Your task to perform on an android device: create a new album in the google photos Image 0: 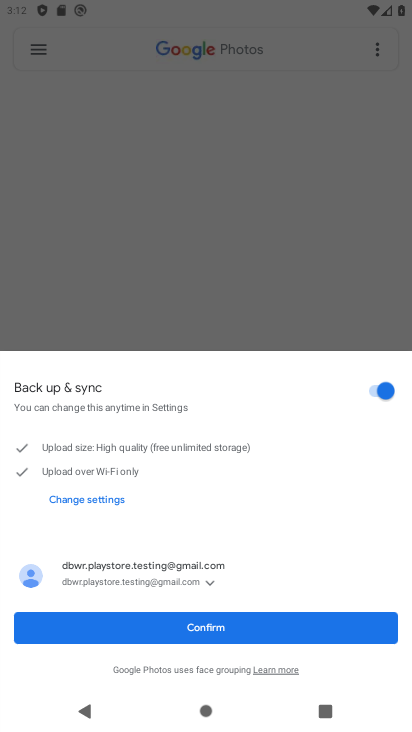
Step 0: press home button
Your task to perform on an android device: create a new album in the google photos Image 1: 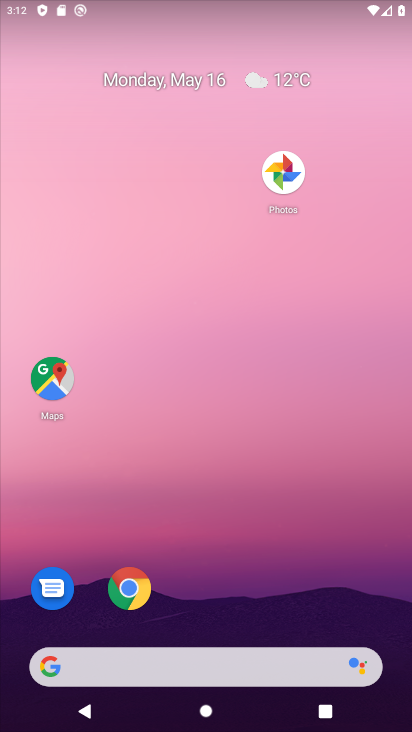
Step 1: drag from (211, 625) to (266, 23)
Your task to perform on an android device: create a new album in the google photos Image 2: 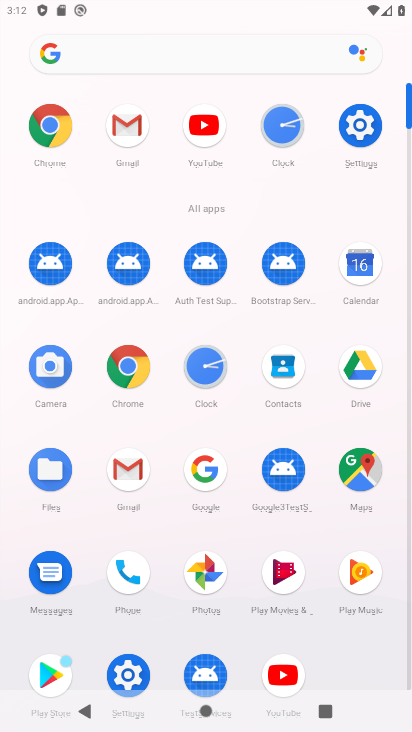
Step 2: click (218, 573)
Your task to perform on an android device: create a new album in the google photos Image 3: 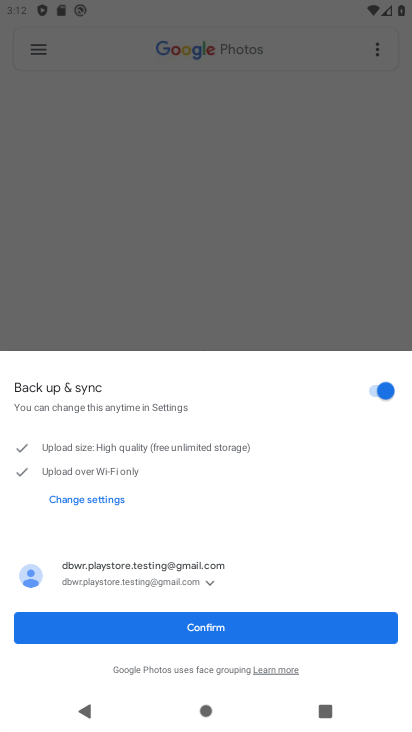
Step 3: click (219, 635)
Your task to perform on an android device: create a new album in the google photos Image 4: 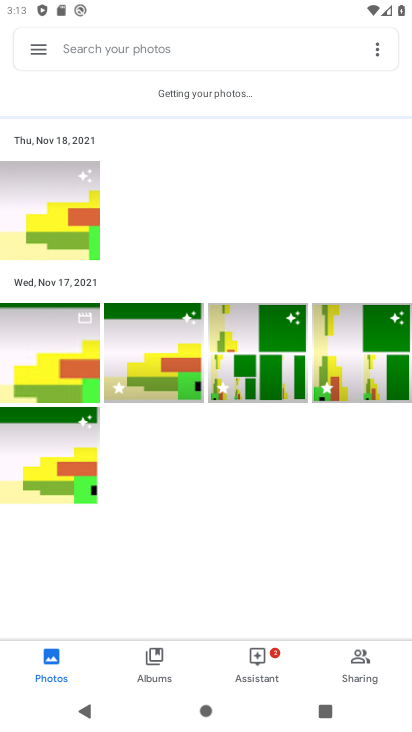
Step 4: drag from (65, 180) to (59, 297)
Your task to perform on an android device: create a new album in the google photos Image 5: 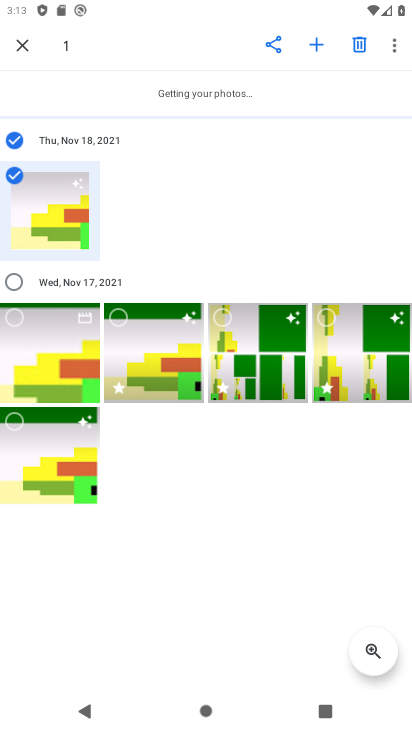
Step 5: click (13, 323)
Your task to perform on an android device: create a new album in the google photos Image 6: 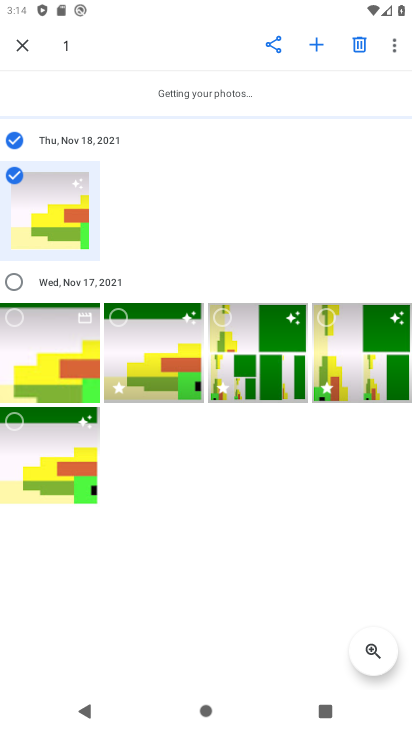
Step 6: click (51, 341)
Your task to perform on an android device: create a new album in the google photos Image 7: 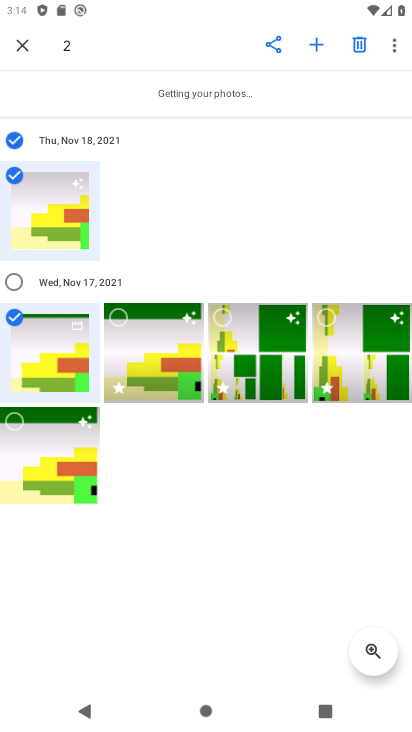
Step 7: click (321, 51)
Your task to perform on an android device: create a new album in the google photos Image 8: 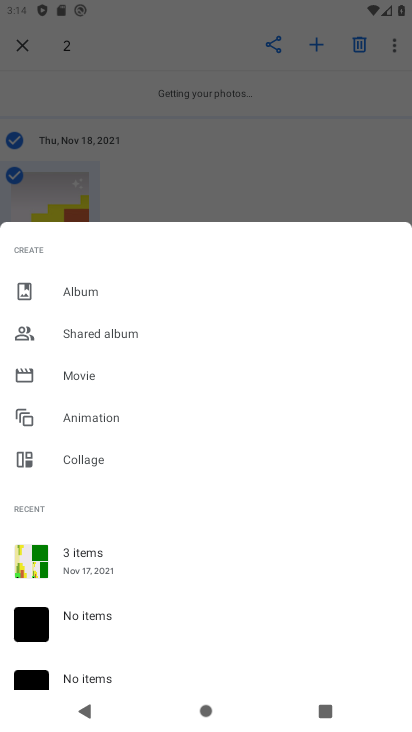
Step 8: type "wqxwfeg"
Your task to perform on an android device: create a new album in the google photos Image 9: 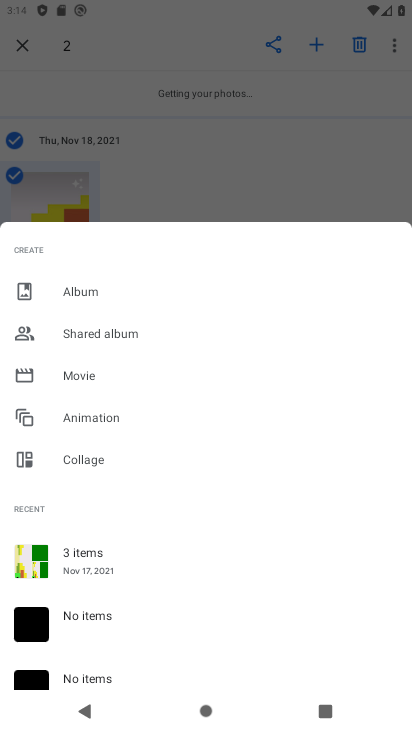
Step 9: click (77, 276)
Your task to perform on an android device: create a new album in the google photos Image 10: 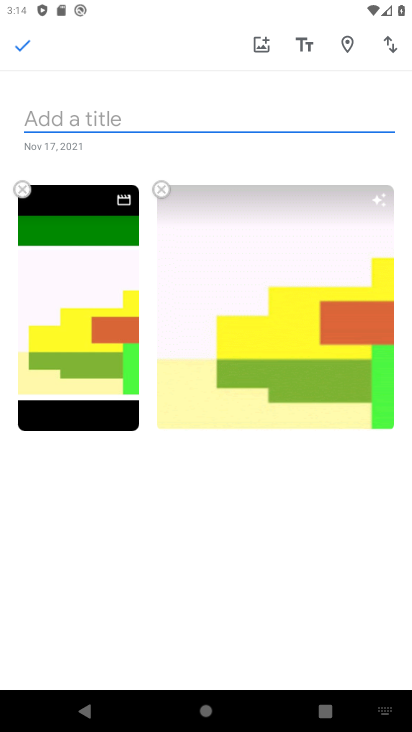
Step 10: type "mnbvg"
Your task to perform on an android device: create a new album in the google photos Image 11: 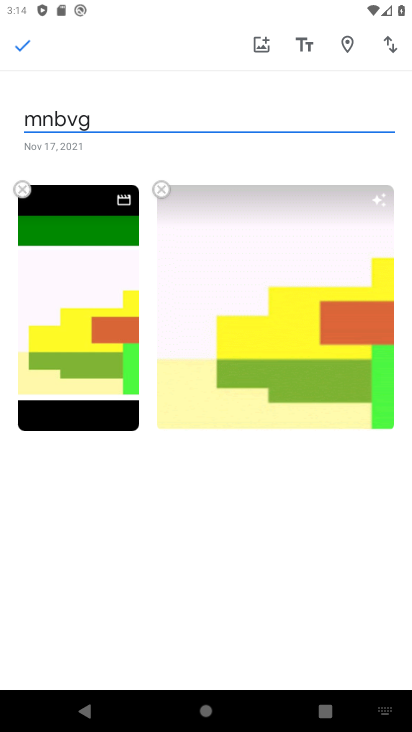
Step 11: click (36, 52)
Your task to perform on an android device: create a new album in the google photos Image 12: 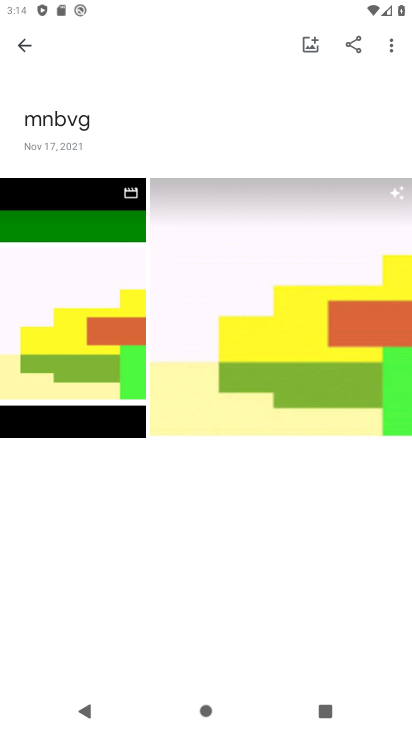
Step 12: task complete